Your task to perform on an android device: Open calendar and show me the second week of next month Image 0: 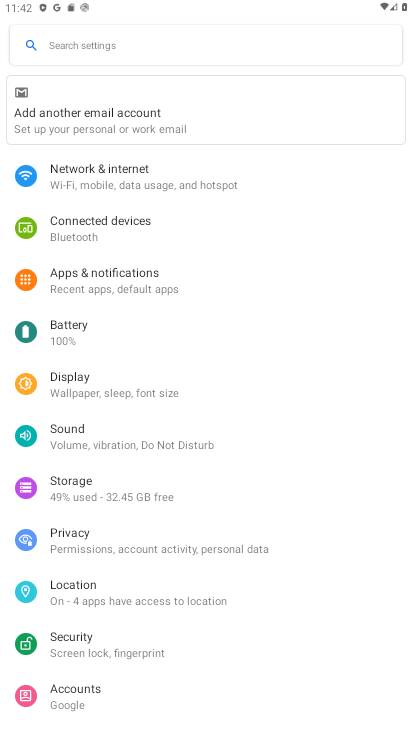
Step 0: press home button
Your task to perform on an android device: Open calendar and show me the second week of next month Image 1: 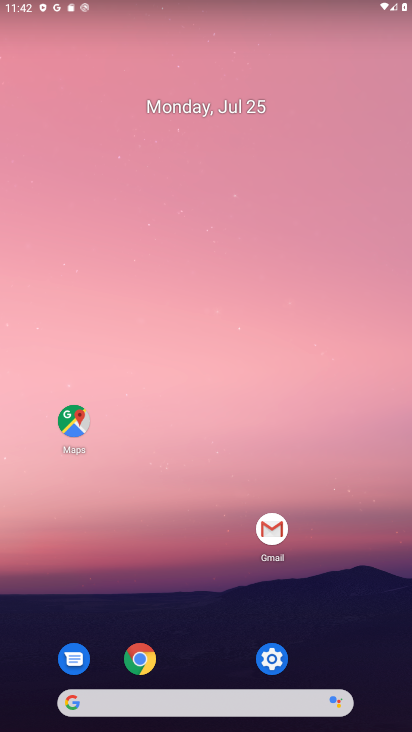
Step 1: drag from (302, 724) to (345, 196)
Your task to perform on an android device: Open calendar and show me the second week of next month Image 2: 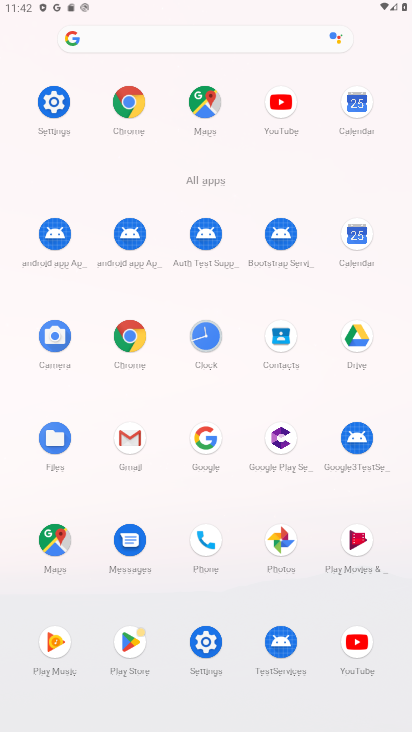
Step 2: click (360, 101)
Your task to perform on an android device: Open calendar and show me the second week of next month Image 3: 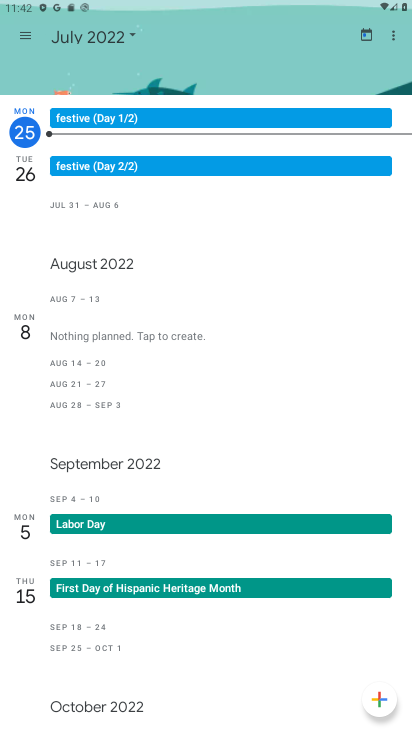
Step 3: click (26, 35)
Your task to perform on an android device: Open calendar and show me the second week of next month Image 4: 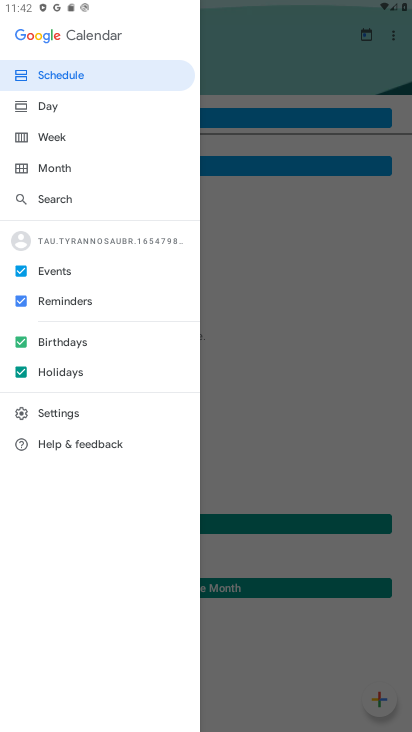
Step 4: click (52, 169)
Your task to perform on an android device: Open calendar and show me the second week of next month Image 5: 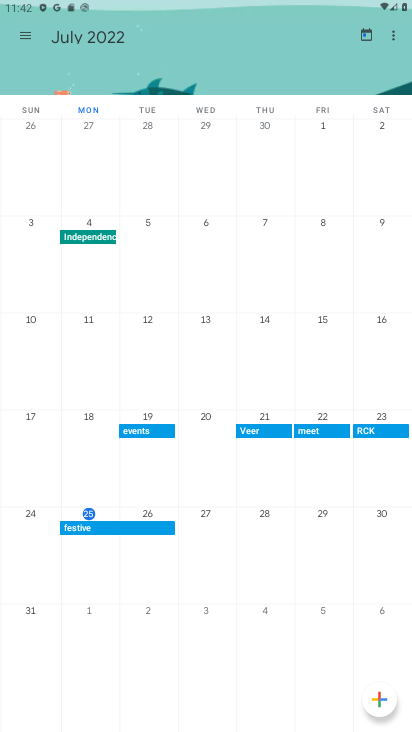
Step 5: drag from (369, 391) to (0, 376)
Your task to perform on an android device: Open calendar and show me the second week of next month Image 6: 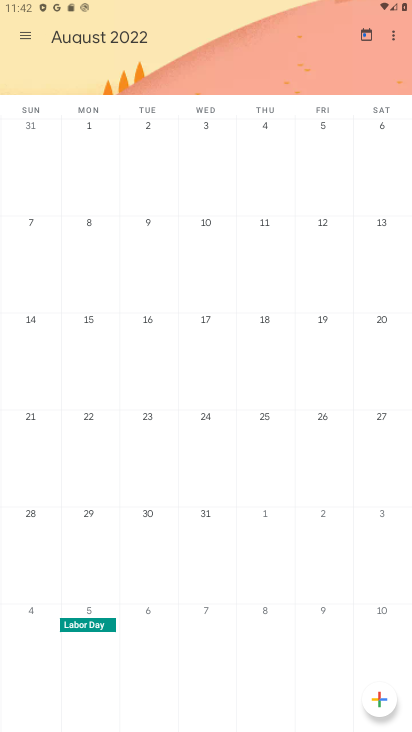
Step 6: click (87, 238)
Your task to perform on an android device: Open calendar and show me the second week of next month Image 7: 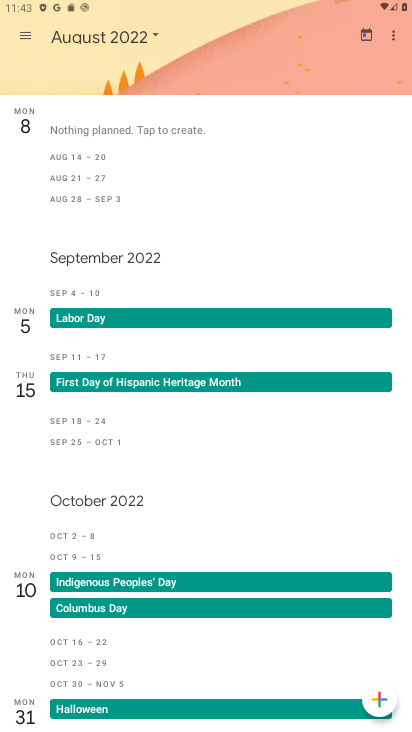
Step 7: task complete